Your task to perform on an android device: Open Google Maps and go to "Timeline" Image 0: 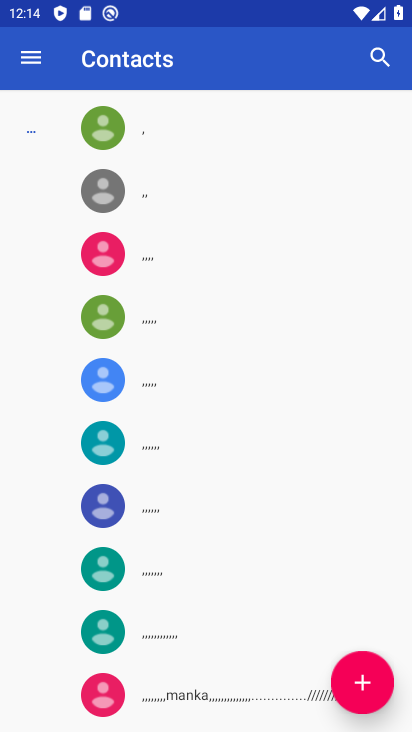
Step 0: press home button
Your task to perform on an android device: Open Google Maps and go to "Timeline" Image 1: 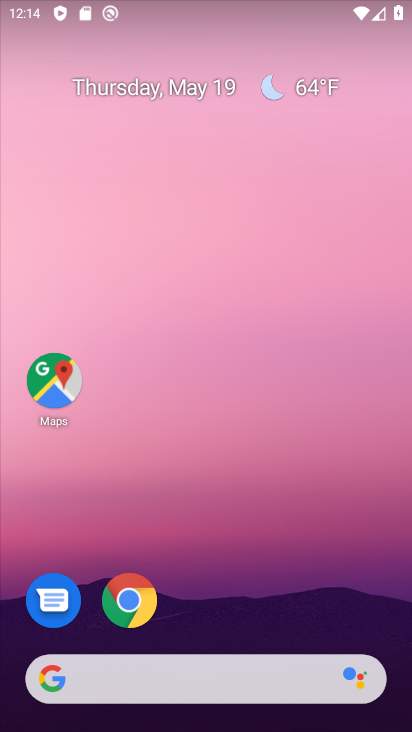
Step 1: drag from (219, 641) to (155, 6)
Your task to perform on an android device: Open Google Maps and go to "Timeline" Image 2: 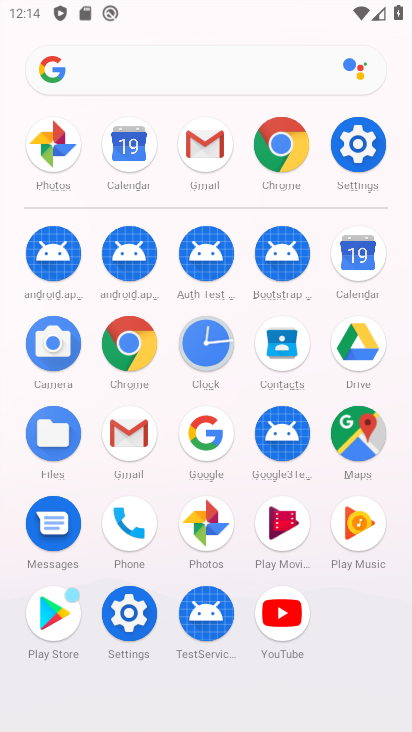
Step 2: click (355, 437)
Your task to perform on an android device: Open Google Maps and go to "Timeline" Image 3: 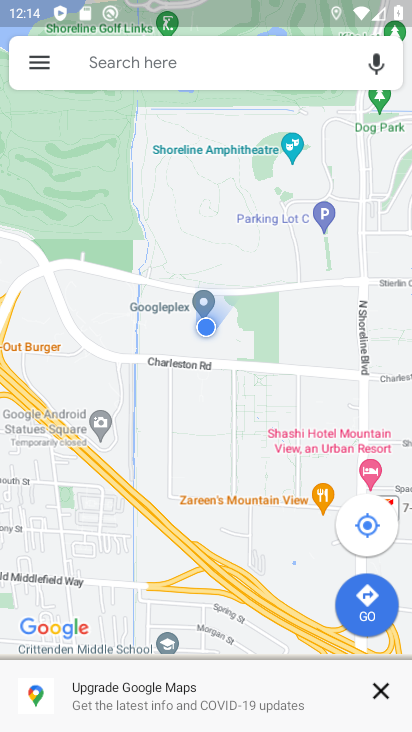
Step 3: click (28, 67)
Your task to perform on an android device: Open Google Maps and go to "Timeline" Image 4: 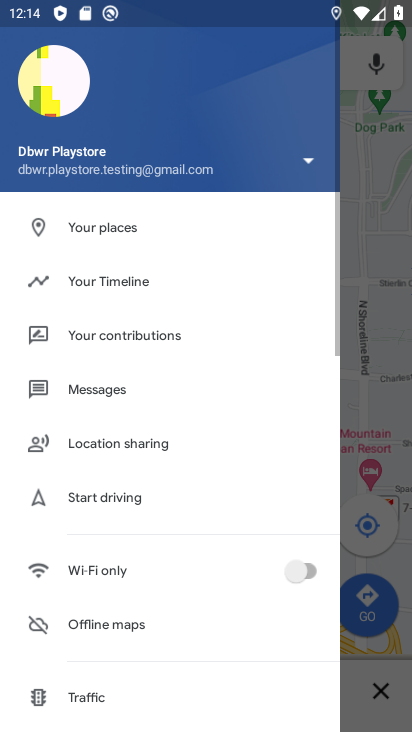
Step 4: click (101, 278)
Your task to perform on an android device: Open Google Maps and go to "Timeline" Image 5: 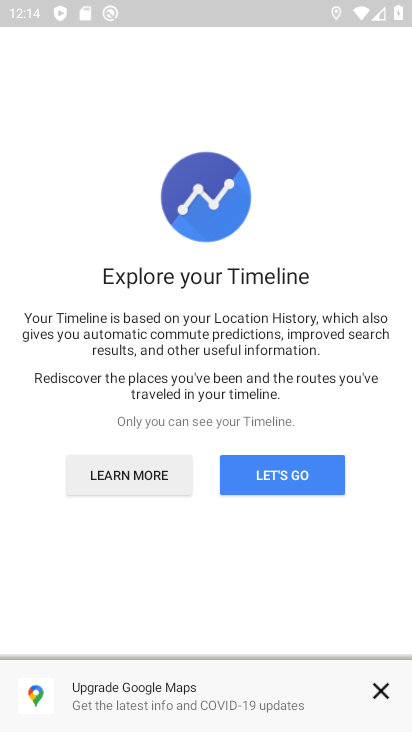
Step 5: click (275, 469)
Your task to perform on an android device: Open Google Maps and go to "Timeline" Image 6: 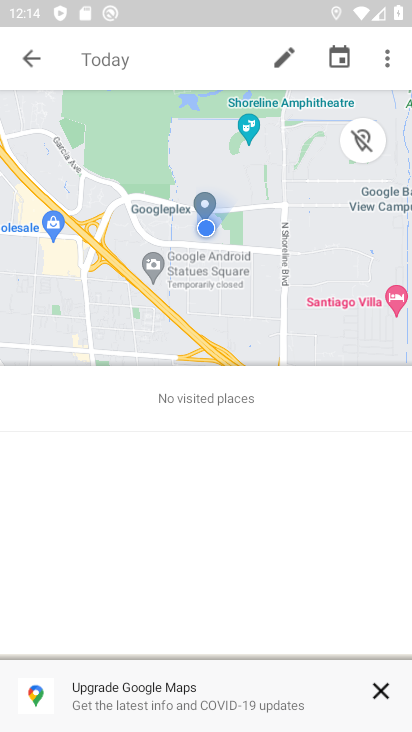
Step 6: task complete